Your task to perform on an android device: What's the weather going to be this weekend? Image 0: 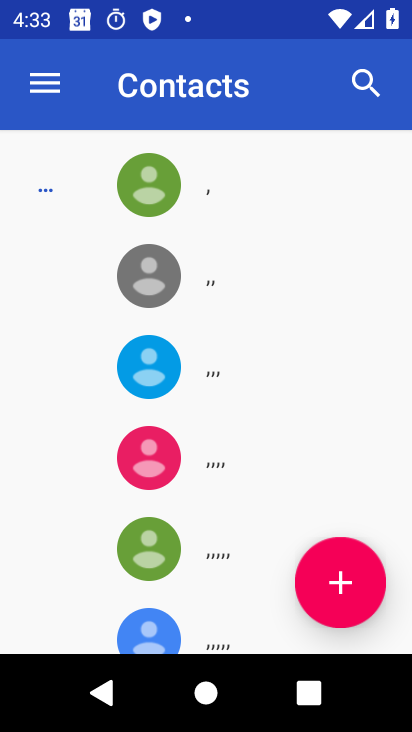
Step 0: press home button
Your task to perform on an android device: What's the weather going to be this weekend? Image 1: 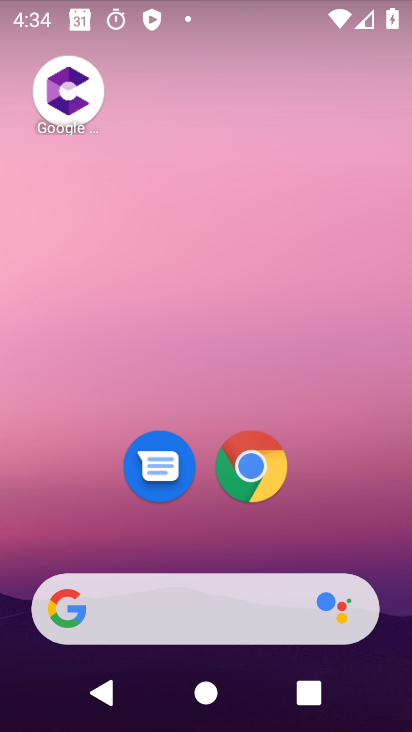
Step 1: drag from (392, 562) to (271, 60)
Your task to perform on an android device: What's the weather going to be this weekend? Image 2: 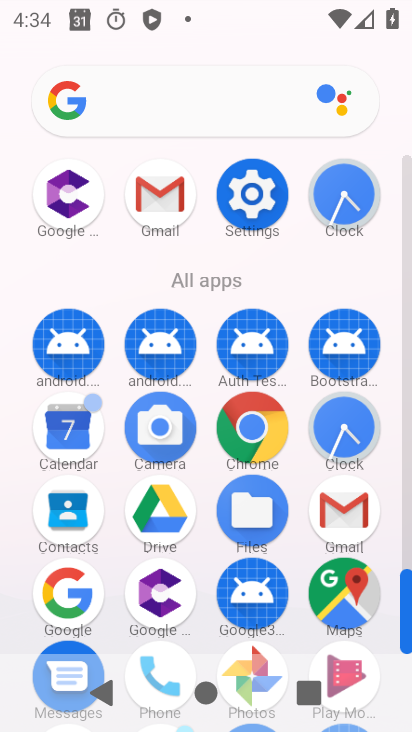
Step 2: click (254, 438)
Your task to perform on an android device: What's the weather going to be this weekend? Image 3: 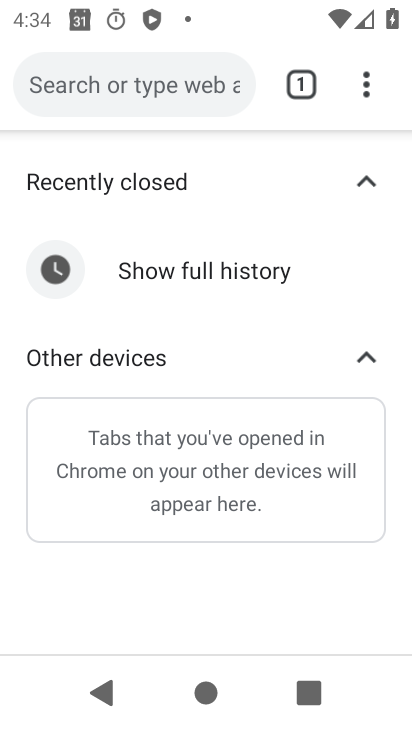
Step 3: click (197, 96)
Your task to perform on an android device: What's the weather going to be this weekend? Image 4: 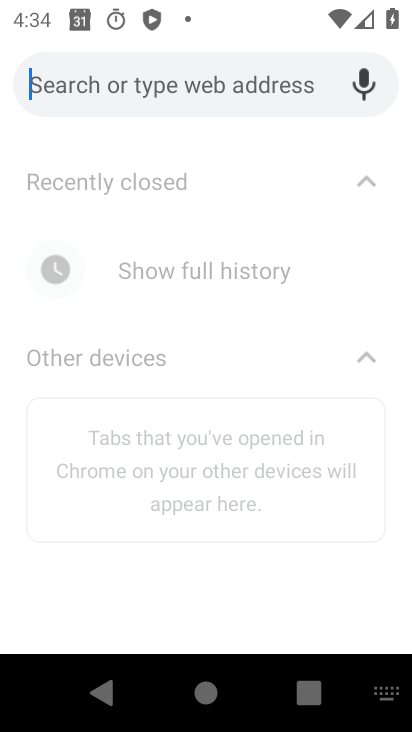
Step 4: type "What's the weather going to be this weekend?"
Your task to perform on an android device: What's the weather going to be this weekend? Image 5: 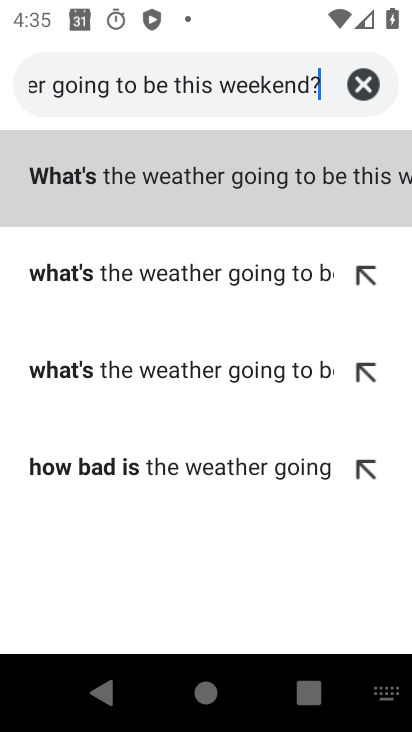
Step 5: press enter
Your task to perform on an android device: What's the weather going to be this weekend? Image 6: 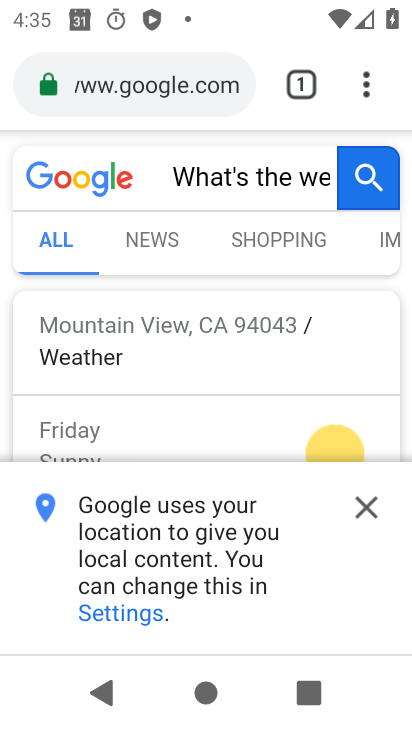
Step 6: click (374, 509)
Your task to perform on an android device: What's the weather going to be this weekend? Image 7: 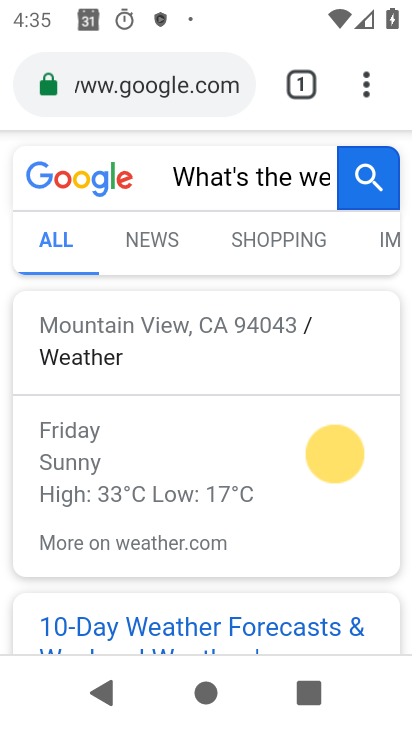
Step 7: task complete